Your task to perform on an android device: change text size in settings app Image 0: 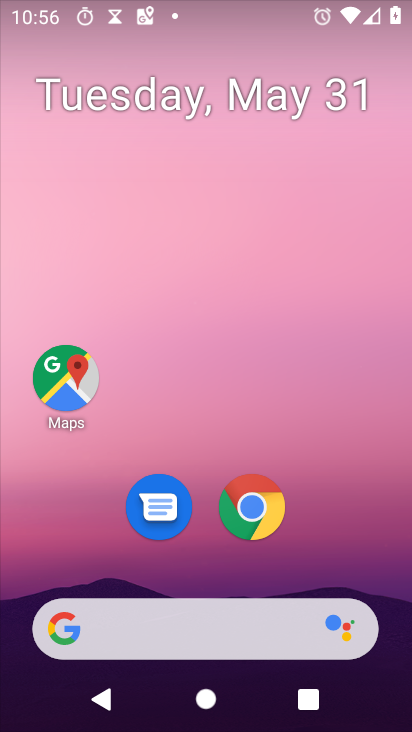
Step 0: drag from (45, 599) to (284, 139)
Your task to perform on an android device: change text size in settings app Image 1: 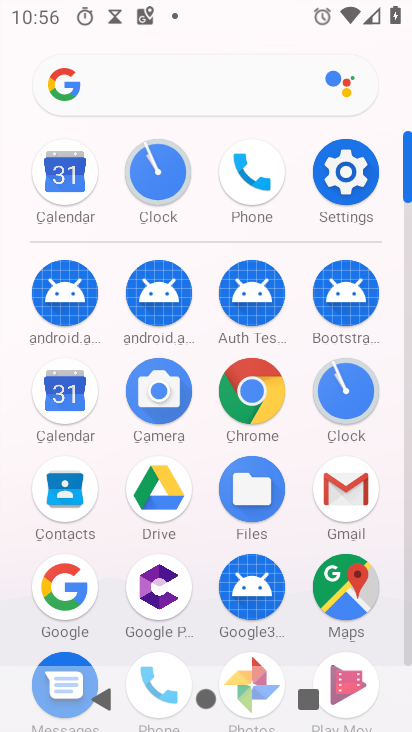
Step 1: click (356, 170)
Your task to perform on an android device: change text size in settings app Image 2: 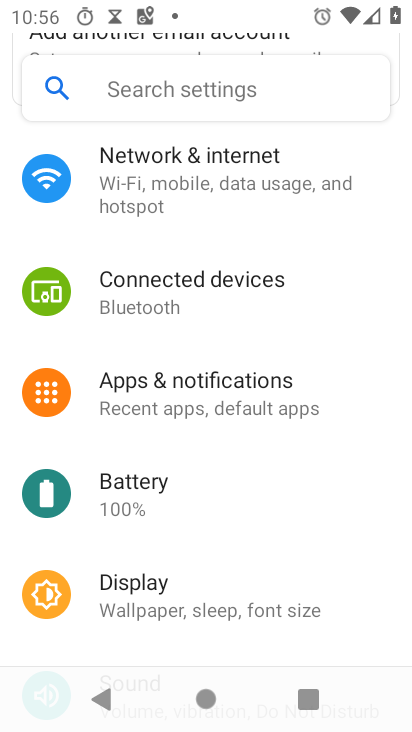
Step 2: click (138, 624)
Your task to perform on an android device: change text size in settings app Image 3: 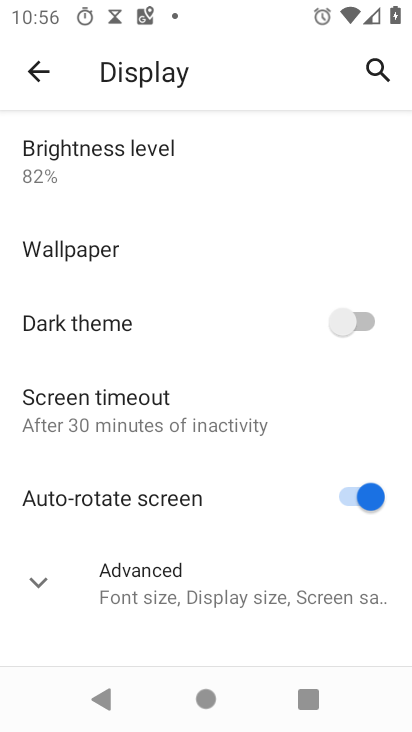
Step 3: click (153, 595)
Your task to perform on an android device: change text size in settings app Image 4: 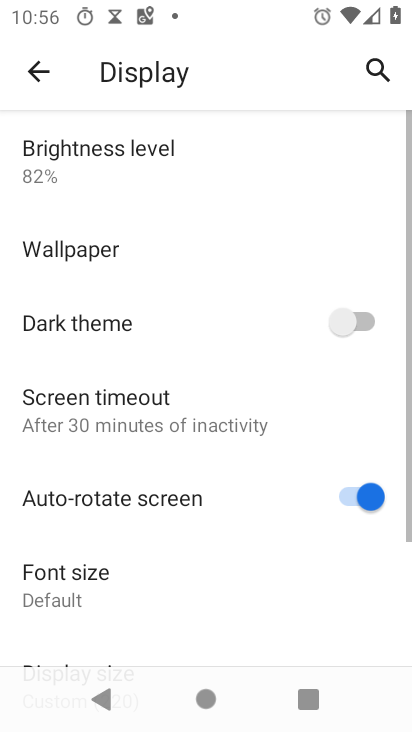
Step 4: drag from (180, 536) to (306, 243)
Your task to perform on an android device: change text size in settings app Image 5: 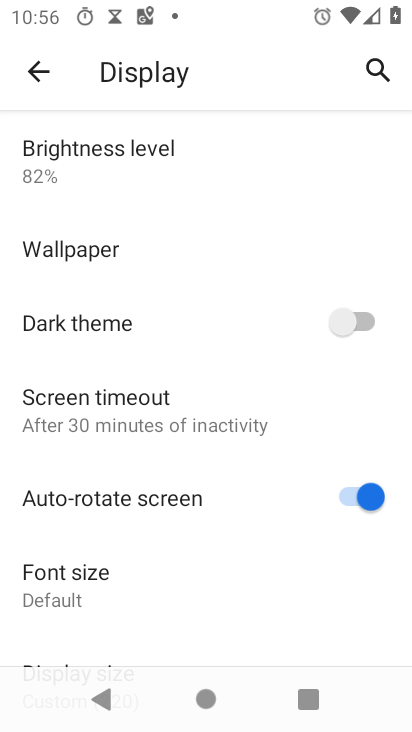
Step 5: click (43, 577)
Your task to perform on an android device: change text size in settings app Image 6: 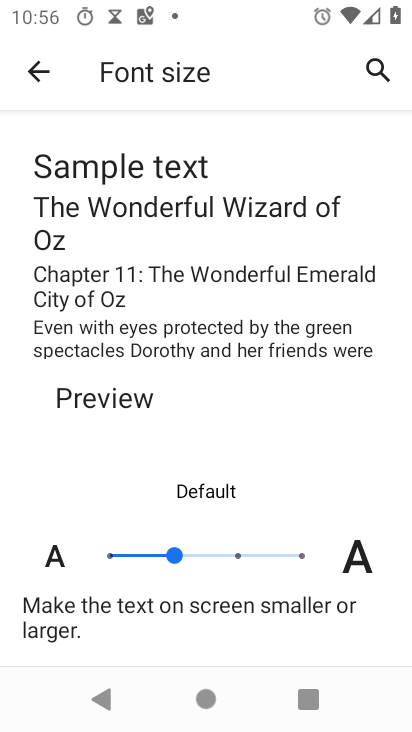
Step 6: click (239, 559)
Your task to perform on an android device: change text size in settings app Image 7: 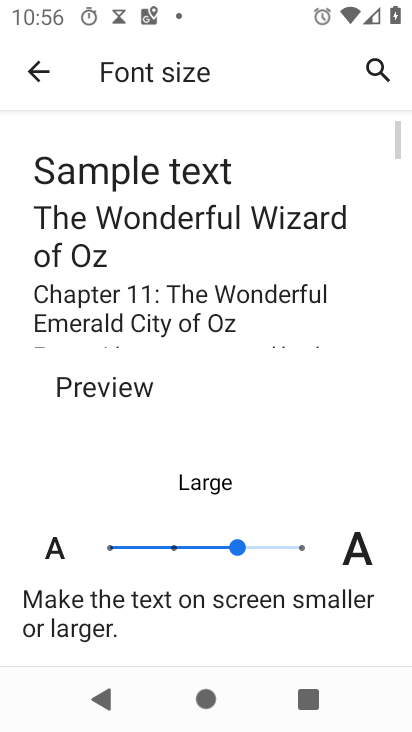
Step 7: task complete